Your task to perform on an android device: Open Chrome and go to the settings page Image 0: 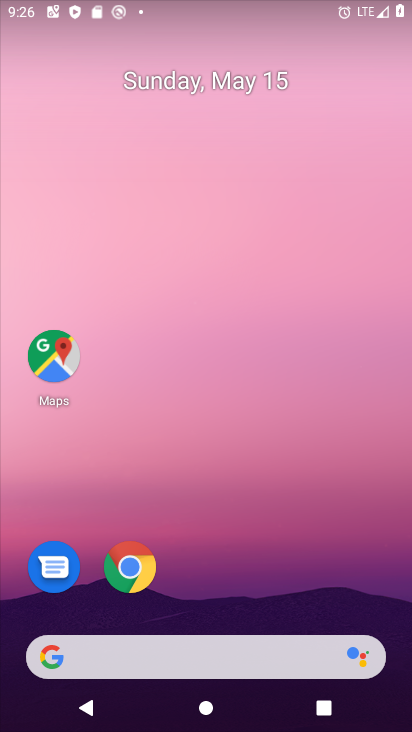
Step 0: click (128, 573)
Your task to perform on an android device: Open Chrome and go to the settings page Image 1: 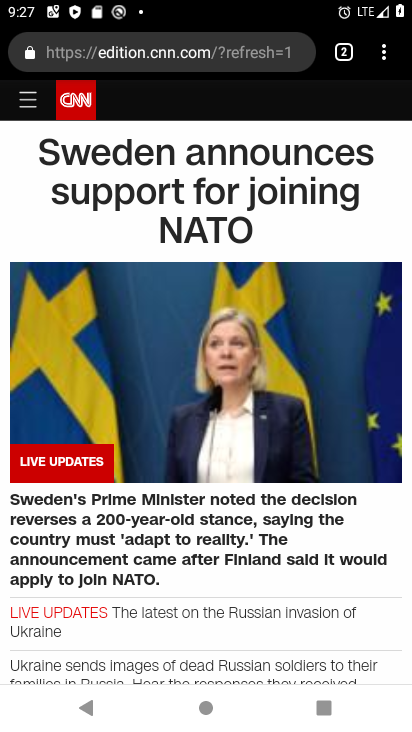
Step 1: click (377, 46)
Your task to perform on an android device: Open Chrome and go to the settings page Image 2: 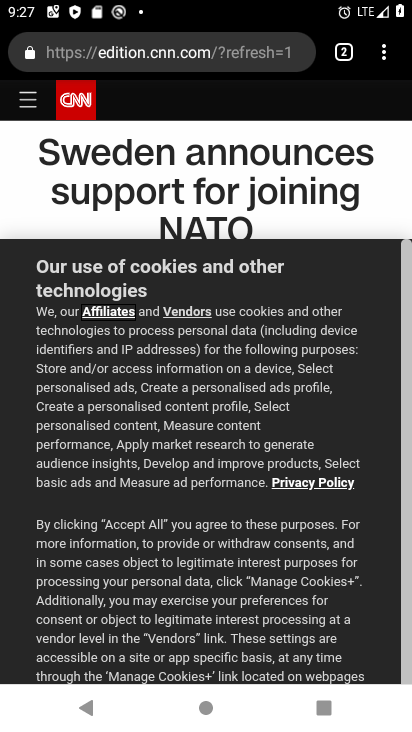
Step 2: click (391, 60)
Your task to perform on an android device: Open Chrome and go to the settings page Image 3: 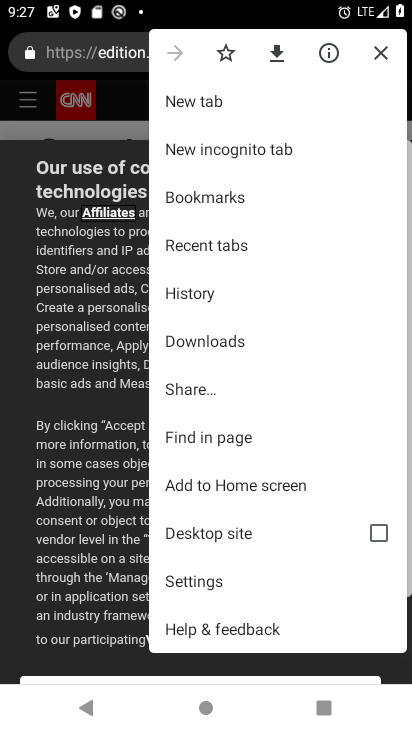
Step 3: click (216, 570)
Your task to perform on an android device: Open Chrome and go to the settings page Image 4: 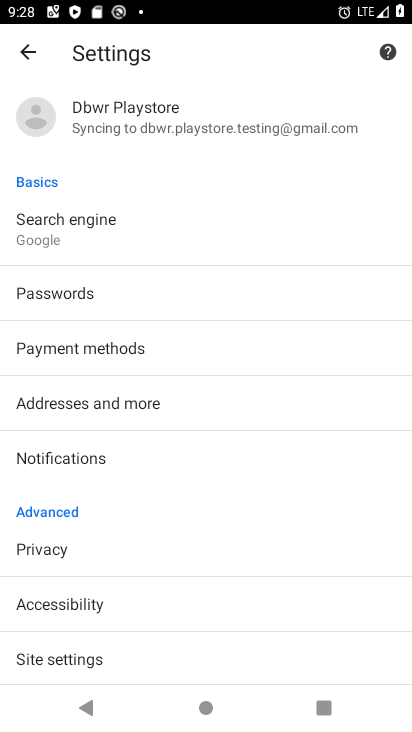
Step 4: task complete